Your task to perform on an android device: add a contact Image 0: 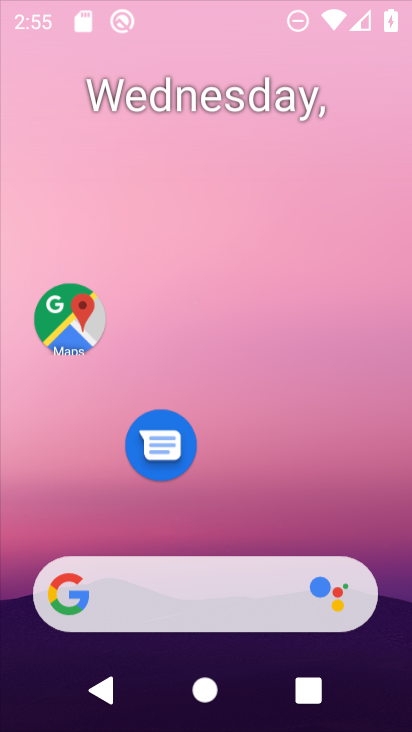
Step 0: drag from (358, 497) to (376, 125)
Your task to perform on an android device: add a contact Image 1: 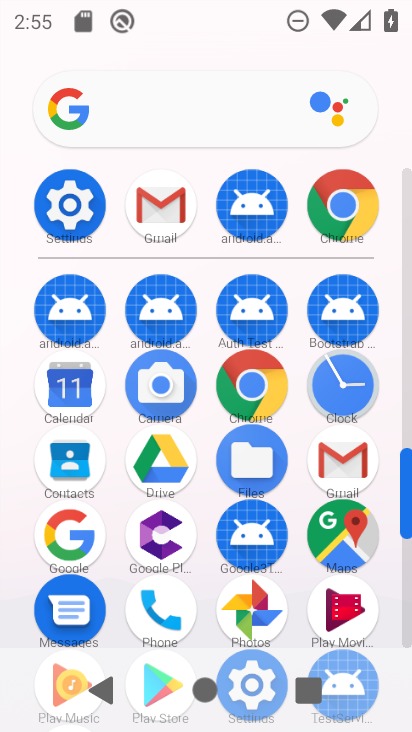
Step 1: click (75, 471)
Your task to perform on an android device: add a contact Image 2: 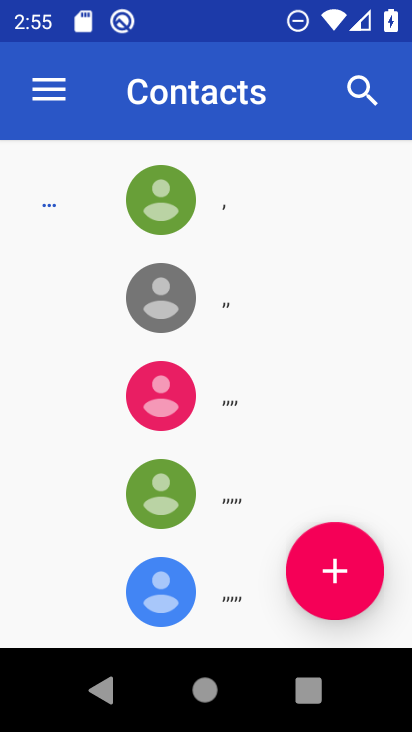
Step 2: click (358, 543)
Your task to perform on an android device: add a contact Image 3: 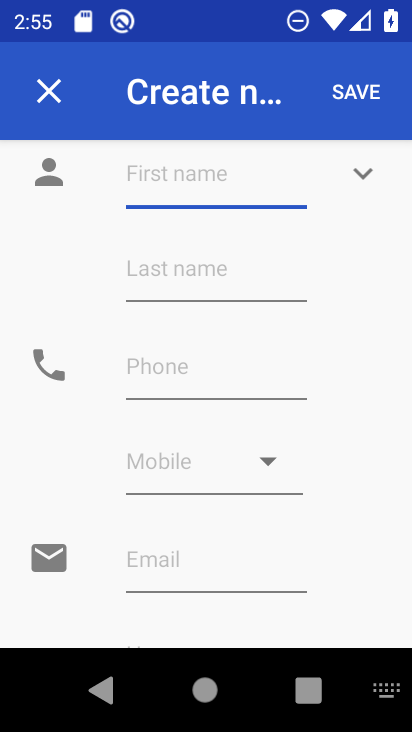
Step 3: type "dsds'"
Your task to perform on an android device: add a contact Image 4: 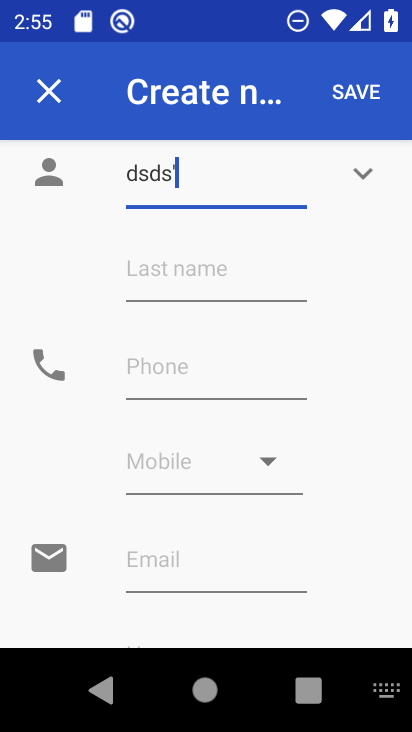
Step 4: click (277, 284)
Your task to perform on an android device: add a contact Image 5: 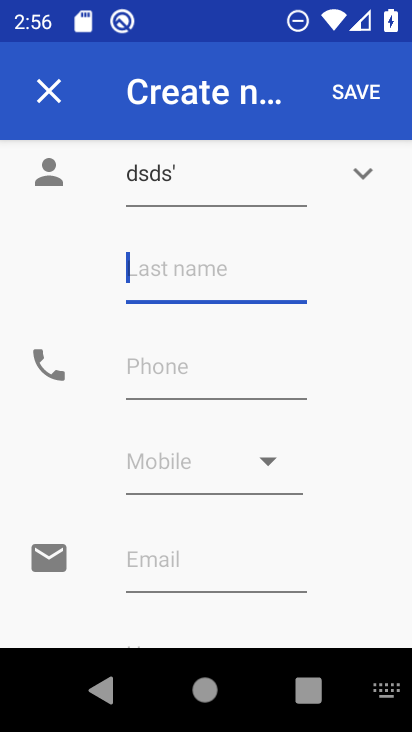
Step 5: type "sad"
Your task to perform on an android device: add a contact Image 6: 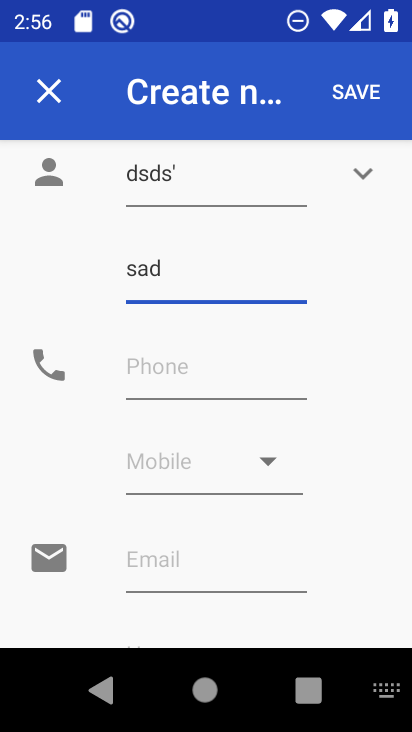
Step 6: type "w"
Your task to perform on an android device: add a contact Image 7: 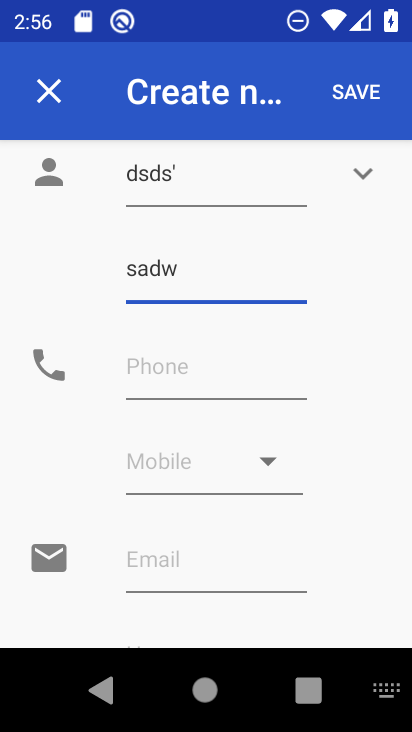
Step 7: type "43534"
Your task to perform on an android device: add a contact Image 8: 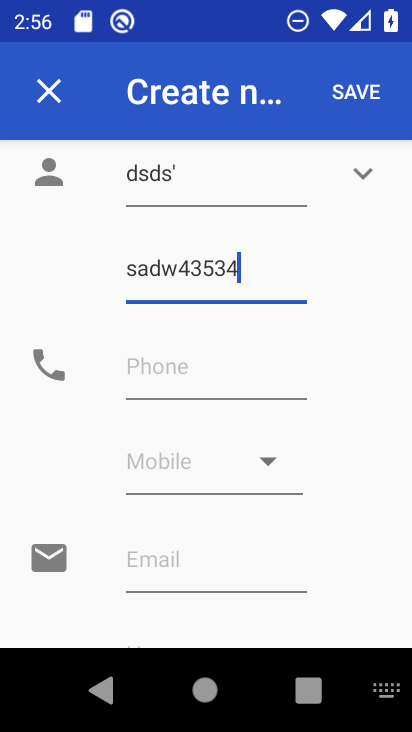
Step 8: click (266, 376)
Your task to perform on an android device: add a contact Image 9: 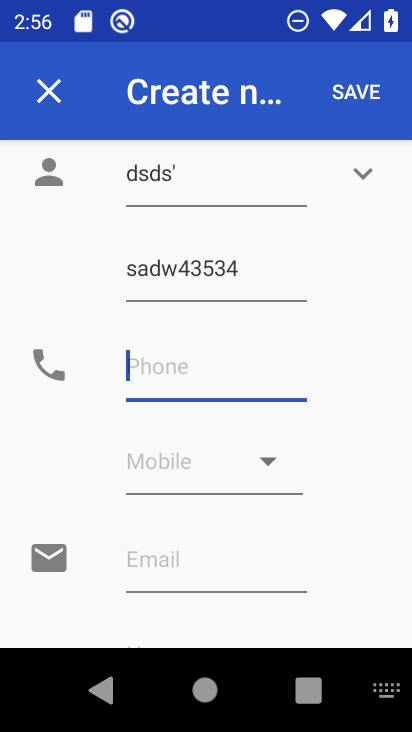
Step 9: type "453453"
Your task to perform on an android device: add a contact Image 10: 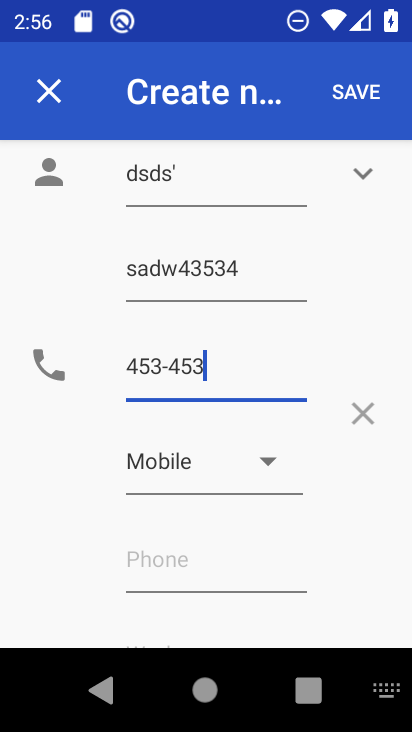
Step 10: type "5"
Your task to perform on an android device: add a contact Image 11: 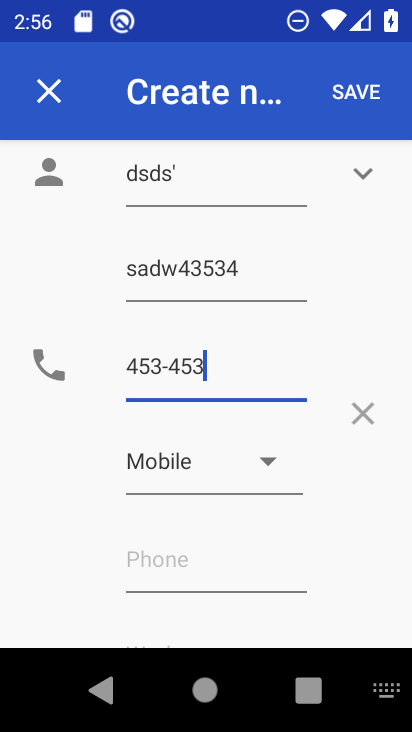
Step 11: click (364, 93)
Your task to perform on an android device: add a contact Image 12: 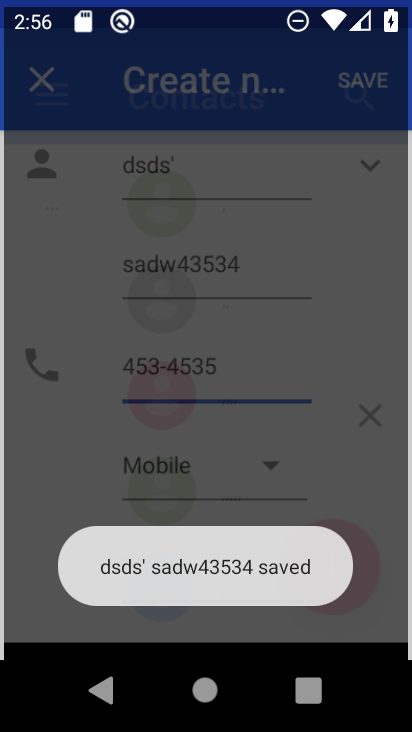
Step 12: task complete